Your task to perform on an android device: add a contact Image 0: 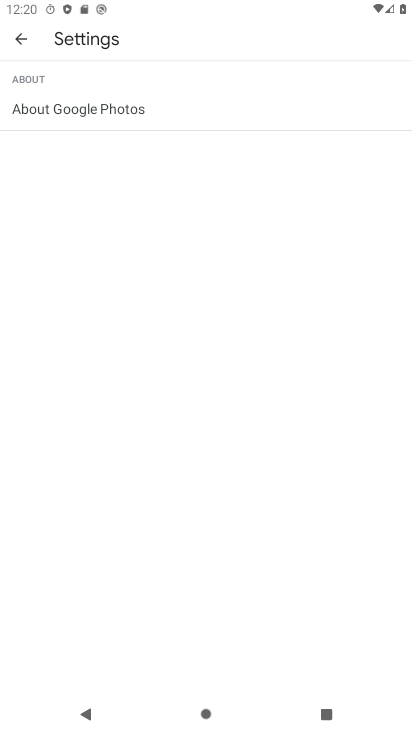
Step 0: press home button
Your task to perform on an android device: add a contact Image 1: 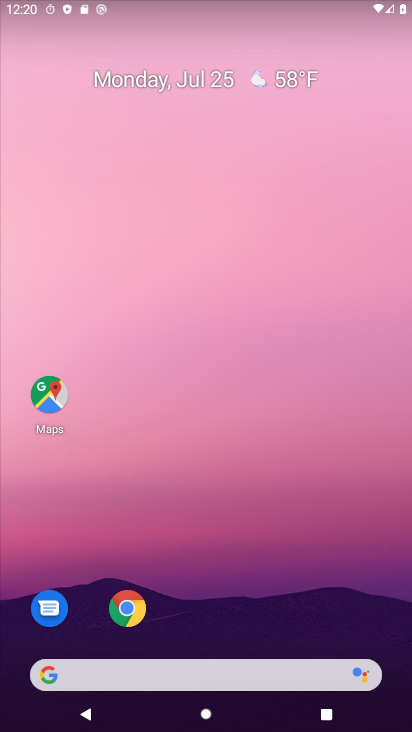
Step 1: drag from (348, 585) to (270, 78)
Your task to perform on an android device: add a contact Image 2: 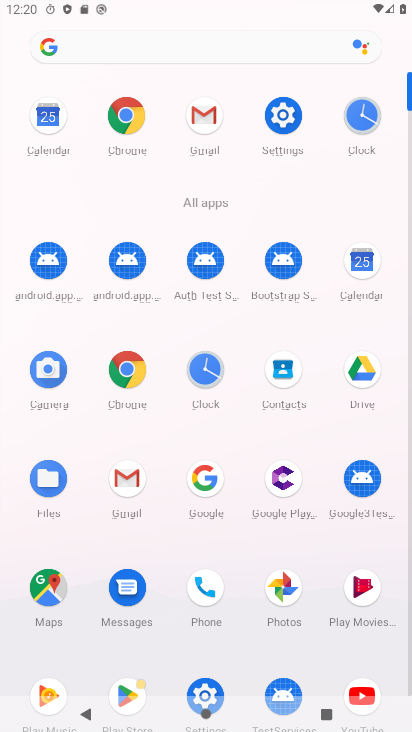
Step 2: click (277, 369)
Your task to perform on an android device: add a contact Image 3: 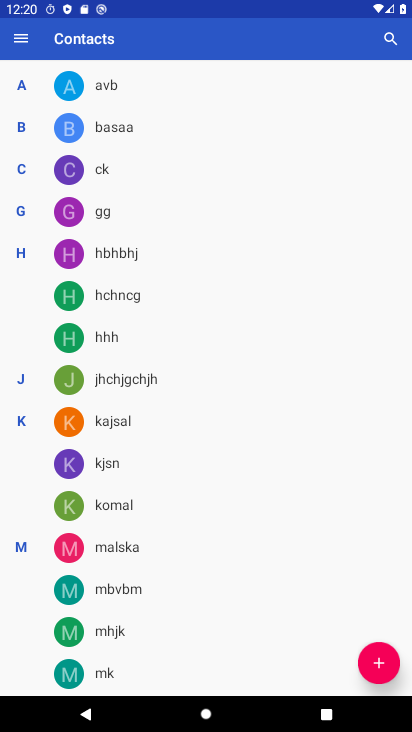
Step 3: click (374, 661)
Your task to perform on an android device: add a contact Image 4: 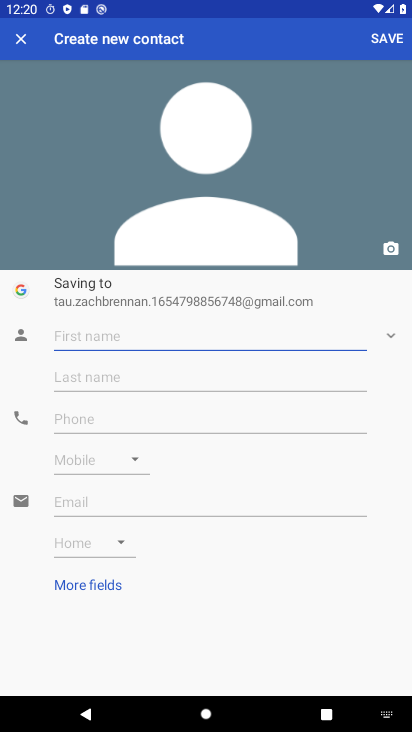
Step 4: click (257, 336)
Your task to perform on an android device: add a contact Image 5: 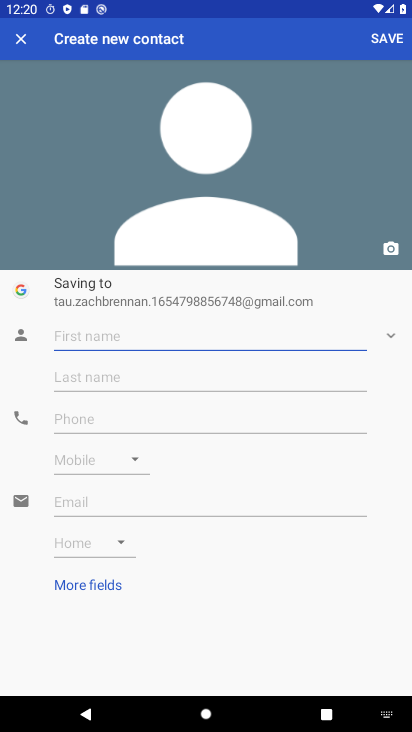
Step 5: type "goploki"
Your task to perform on an android device: add a contact Image 6: 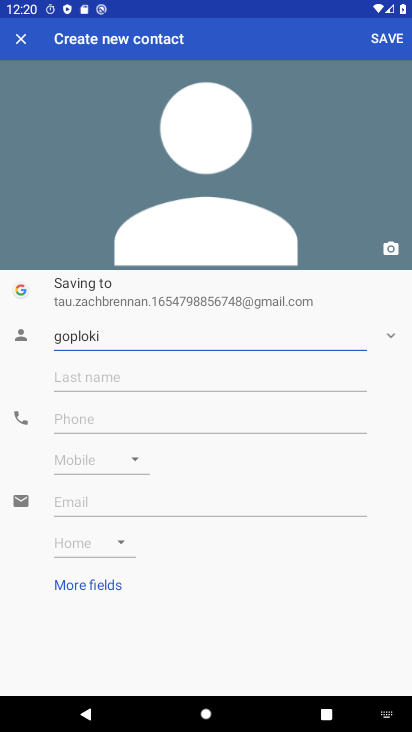
Step 6: click (382, 43)
Your task to perform on an android device: add a contact Image 7: 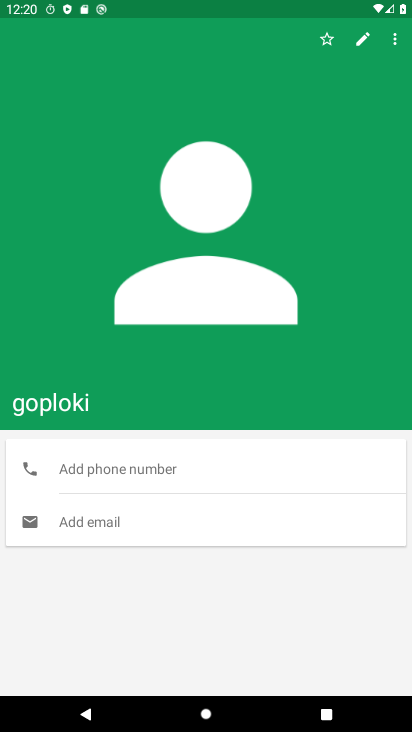
Step 7: task complete